Your task to perform on an android device: What's the US dollar exchange rate against the Euro? Image 0: 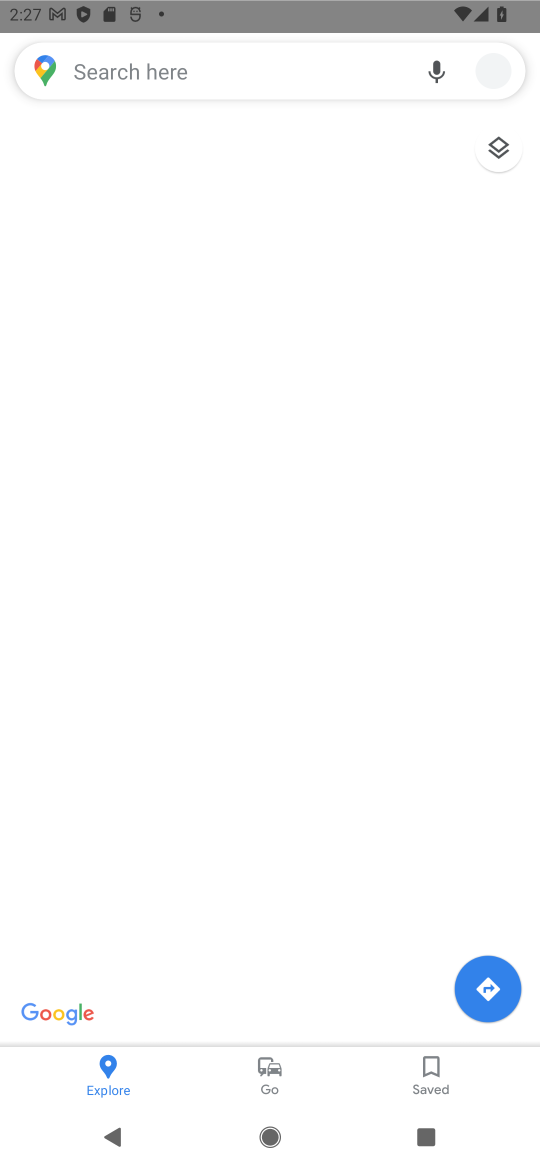
Step 0: press home button
Your task to perform on an android device: What's the US dollar exchange rate against the Euro? Image 1: 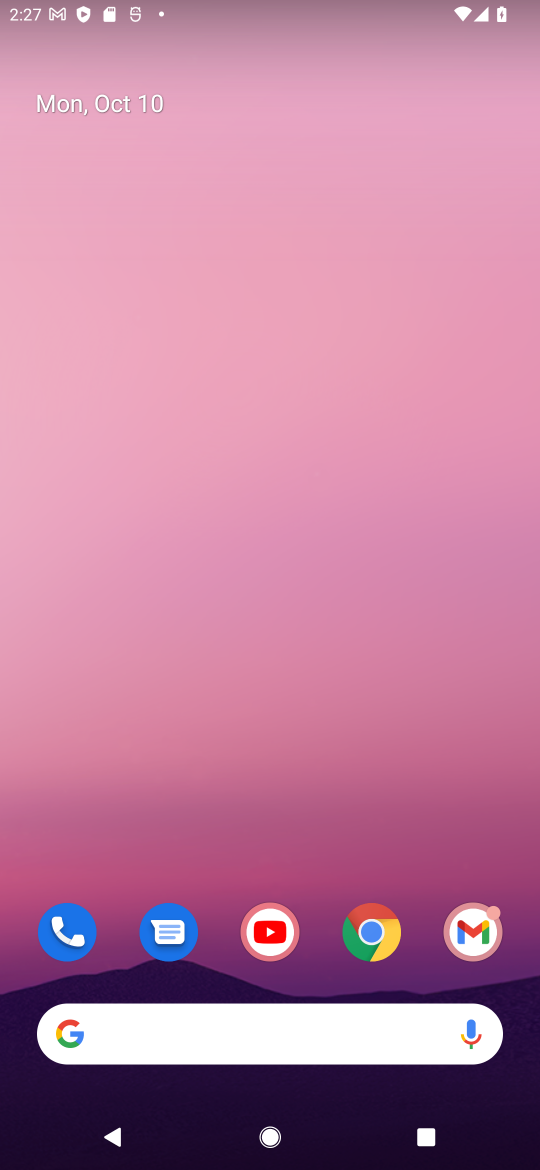
Step 1: click (214, 1039)
Your task to perform on an android device: What's the US dollar exchange rate against the Euro? Image 2: 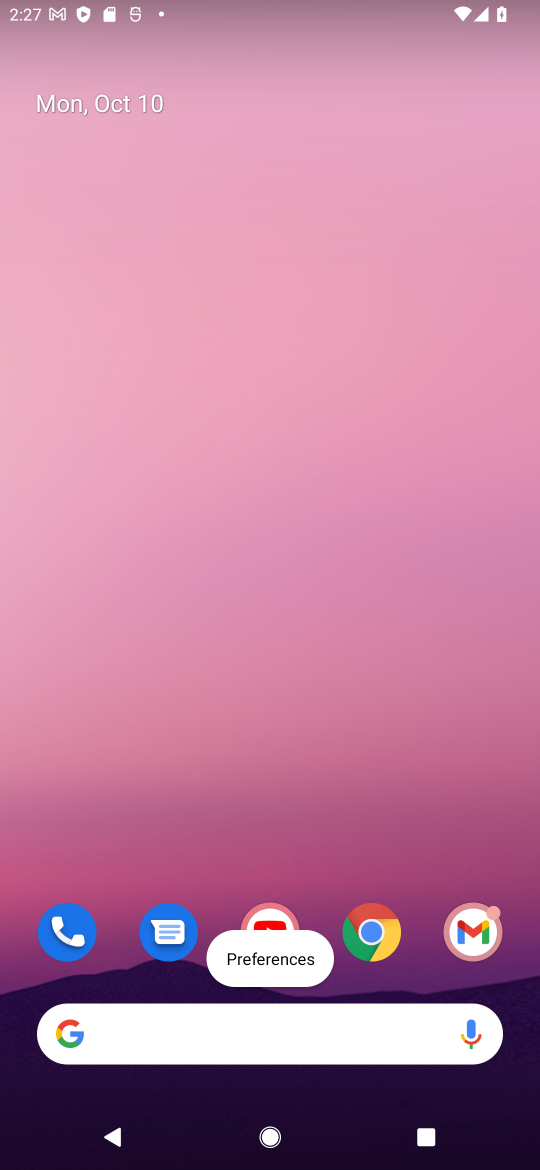
Step 2: click (108, 1028)
Your task to perform on an android device: What's the US dollar exchange rate against the Euro? Image 3: 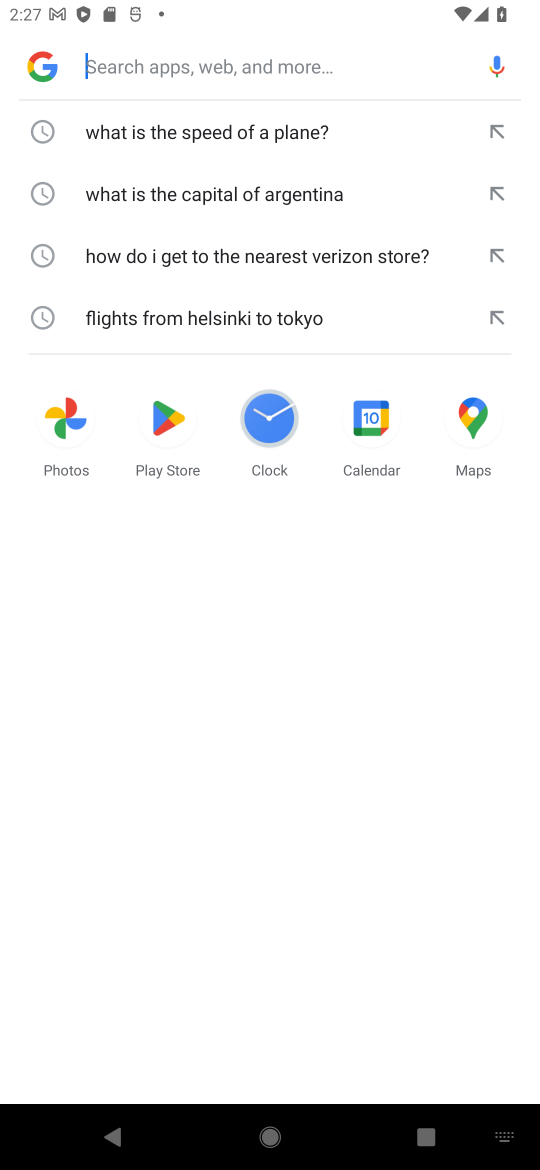
Step 3: type "What's the US dollar exchange rate against the Euro"
Your task to perform on an android device: What's the US dollar exchange rate against the Euro? Image 4: 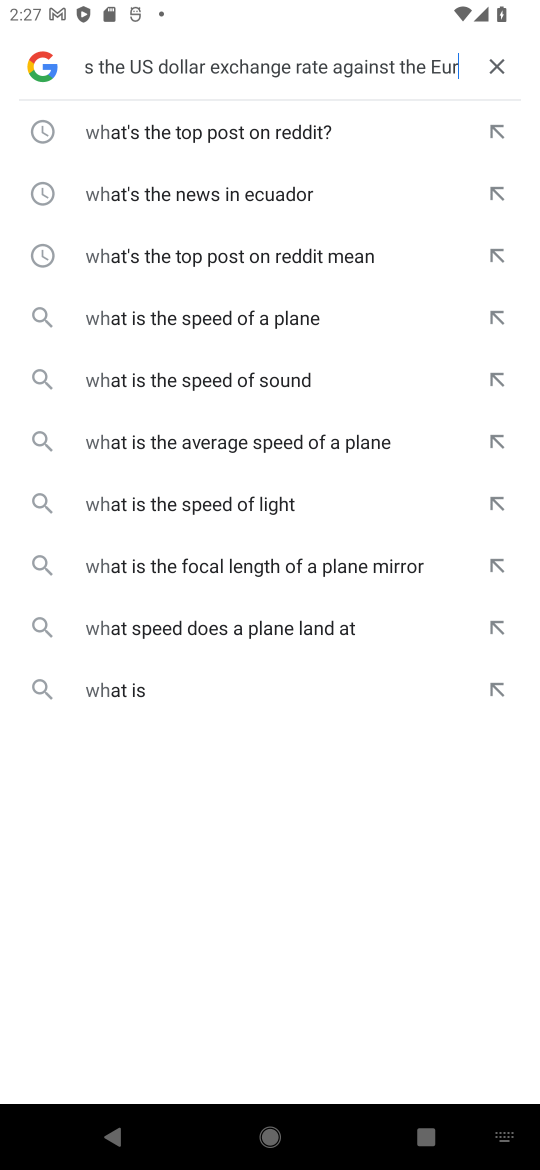
Step 4: press enter
Your task to perform on an android device: What's the US dollar exchange rate against the Euro? Image 5: 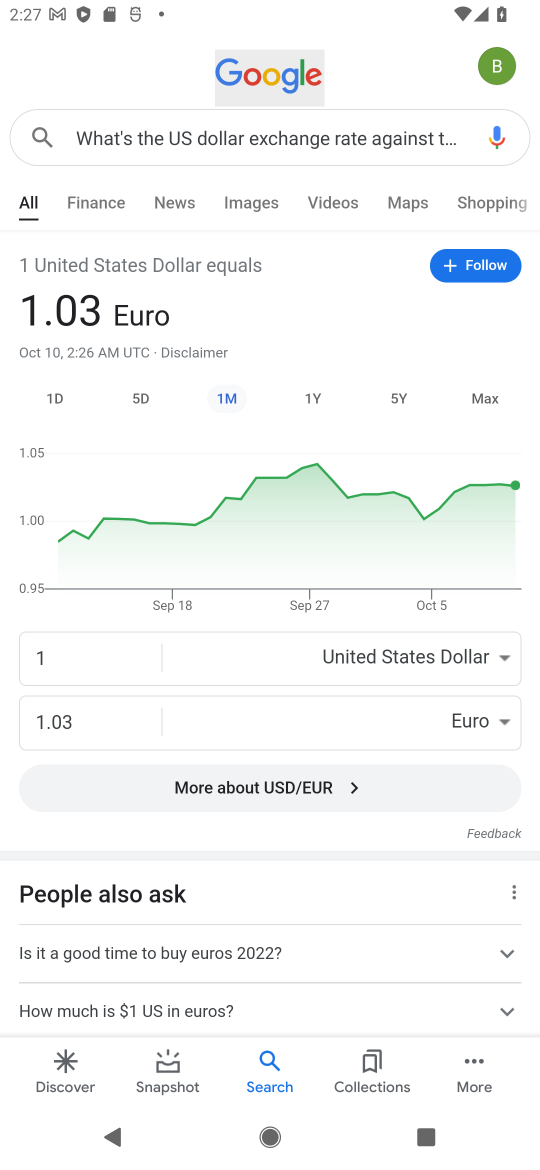
Step 5: task complete